Your task to perform on an android device: turn pop-ups off in chrome Image 0: 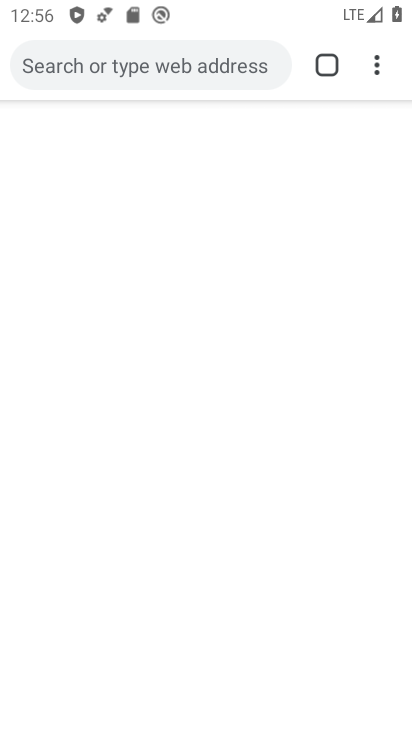
Step 0: drag from (183, 574) to (411, 146)
Your task to perform on an android device: turn pop-ups off in chrome Image 1: 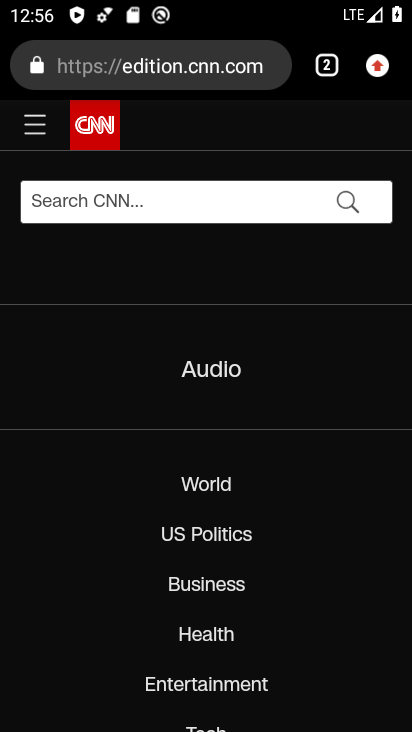
Step 1: click (380, 60)
Your task to perform on an android device: turn pop-ups off in chrome Image 2: 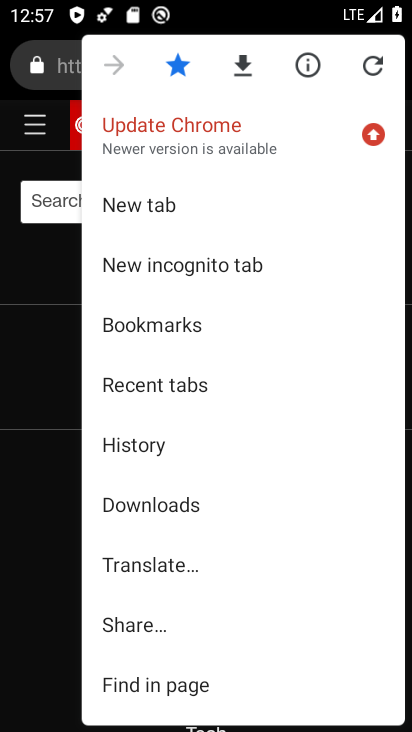
Step 2: drag from (308, 619) to (242, 142)
Your task to perform on an android device: turn pop-ups off in chrome Image 3: 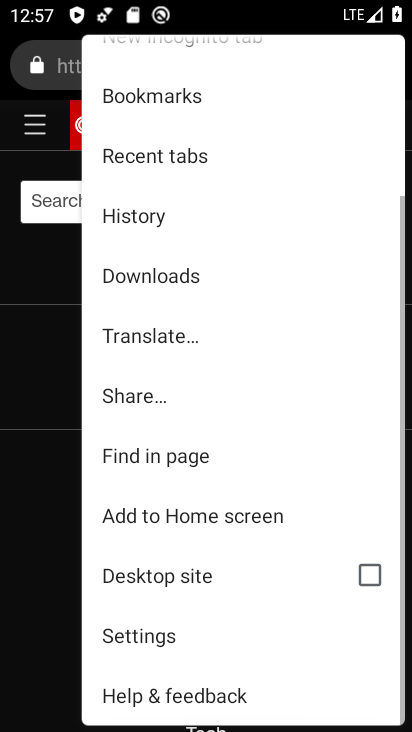
Step 3: click (152, 642)
Your task to perform on an android device: turn pop-ups off in chrome Image 4: 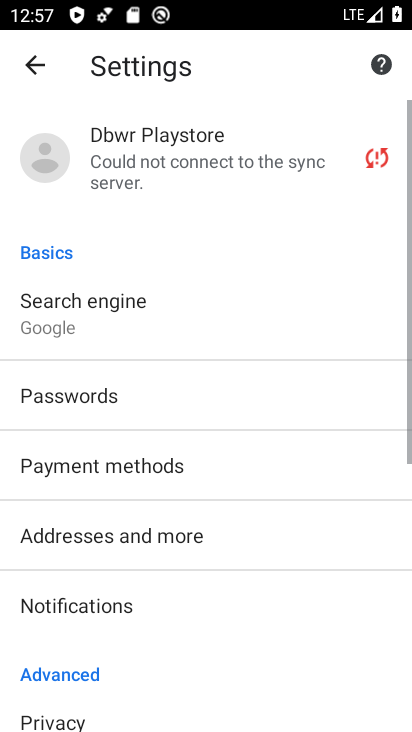
Step 4: drag from (195, 571) to (224, 248)
Your task to perform on an android device: turn pop-ups off in chrome Image 5: 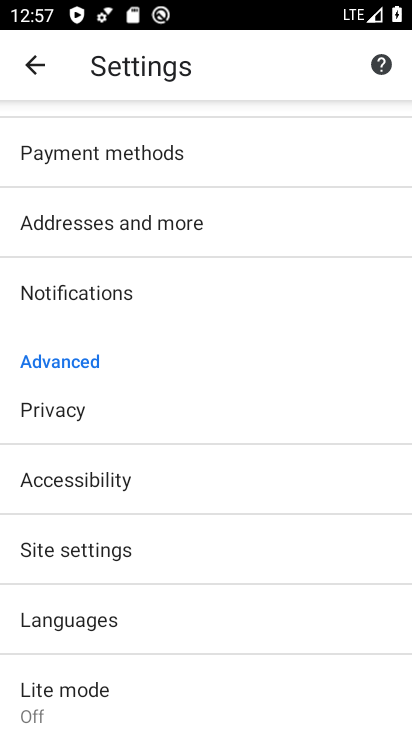
Step 5: click (89, 545)
Your task to perform on an android device: turn pop-ups off in chrome Image 6: 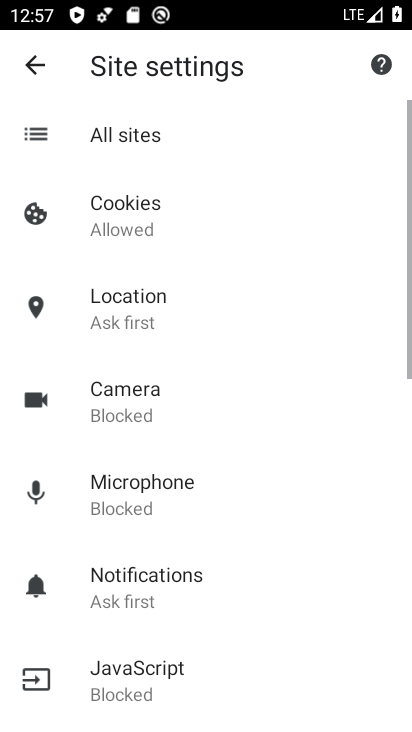
Step 6: drag from (184, 537) to (180, 188)
Your task to perform on an android device: turn pop-ups off in chrome Image 7: 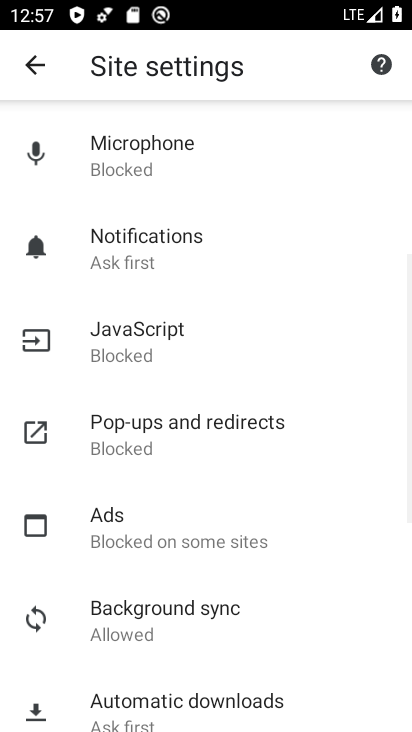
Step 7: click (135, 424)
Your task to perform on an android device: turn pop-ups off in chrome Image 8: 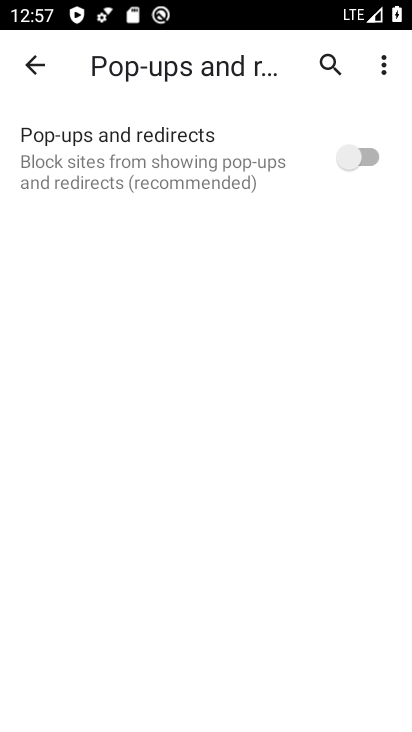
Step 8: task complete